Your task to perform on an android device: View the shopping cart on costco.com. Add "razer blade" to the cart on costco.com Image 0: 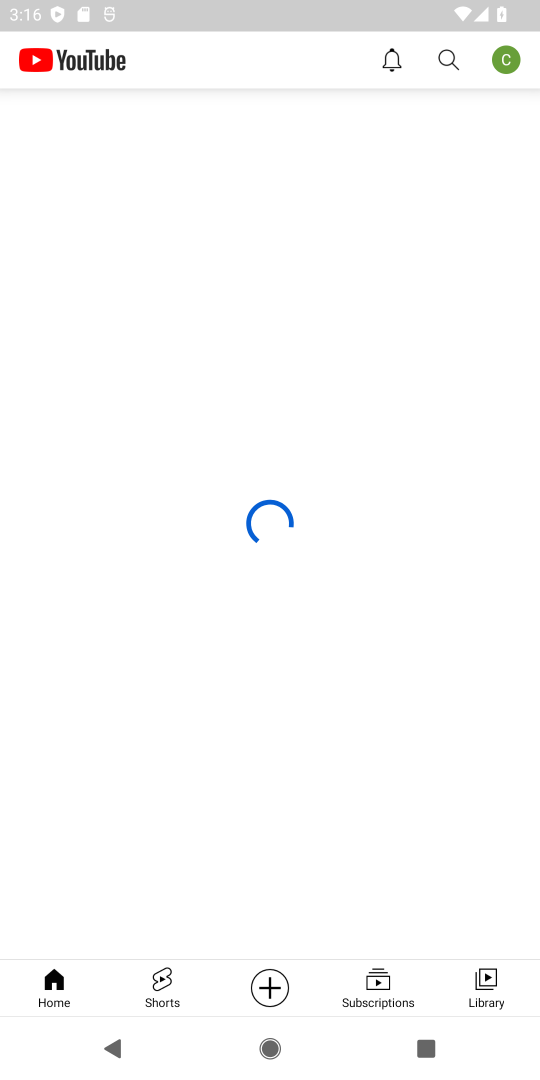
Step 0: press home button
Your task to perform on an android device: View the shopping cart on costco.com. Add "razer blade" to the cart on costco.com Image 1: 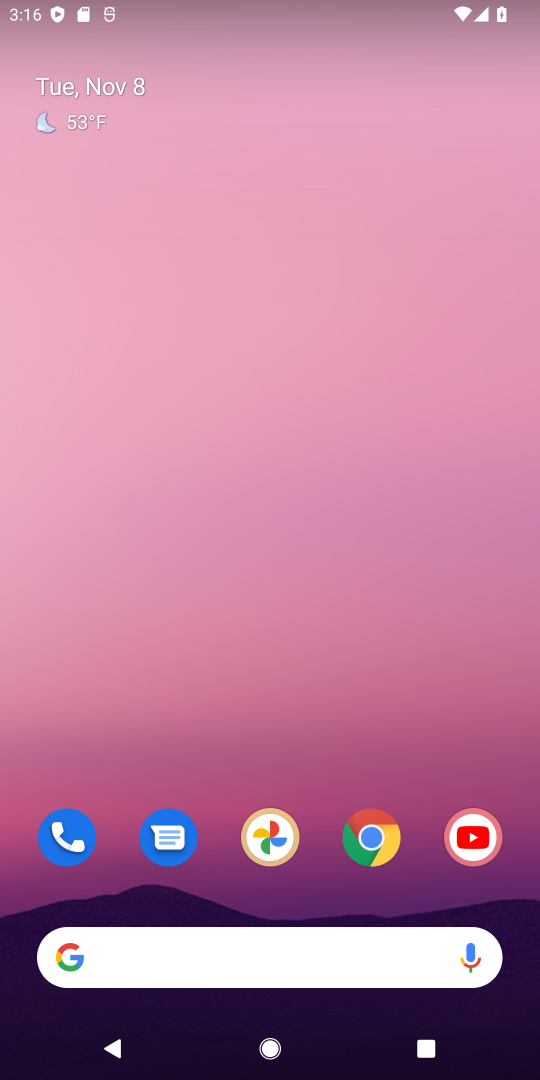
Step 1: click (369, 837)
Your task to perform on an android device: View the shopping cart on costco.com. Add "razer blade" to the cart on costco.com Image 2: 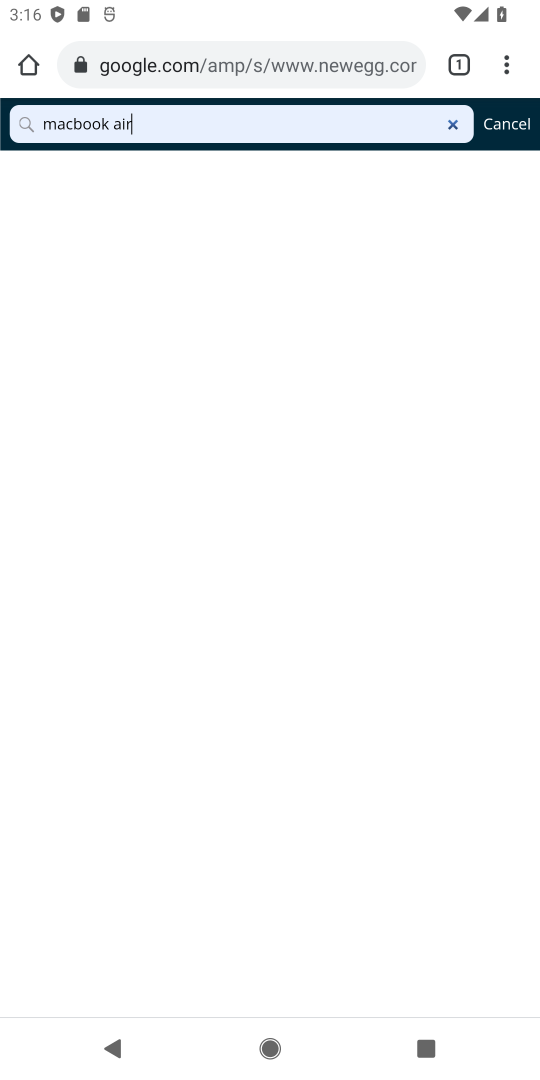
Step 2: click (199, 68)
Your task to perform on an android device: View the shopping cart on costco.com. Add "razer blade" to the cart on costco.com Image 3: 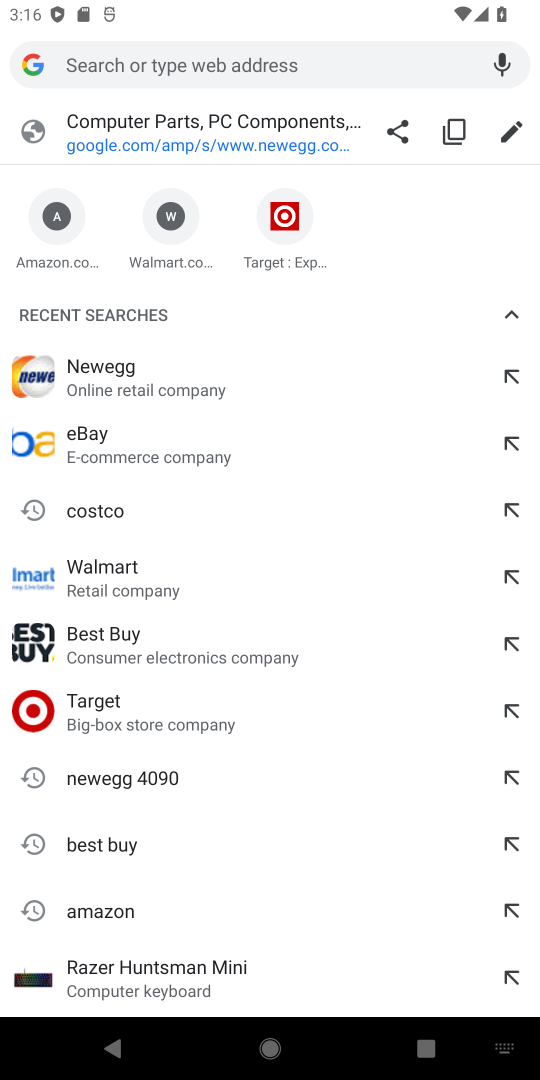
Step 3: click (86, 506)
Your task to perform on an android device: View the shopping cart on costco.com. Add "razer blade" to the cart on costco.com Image 4: 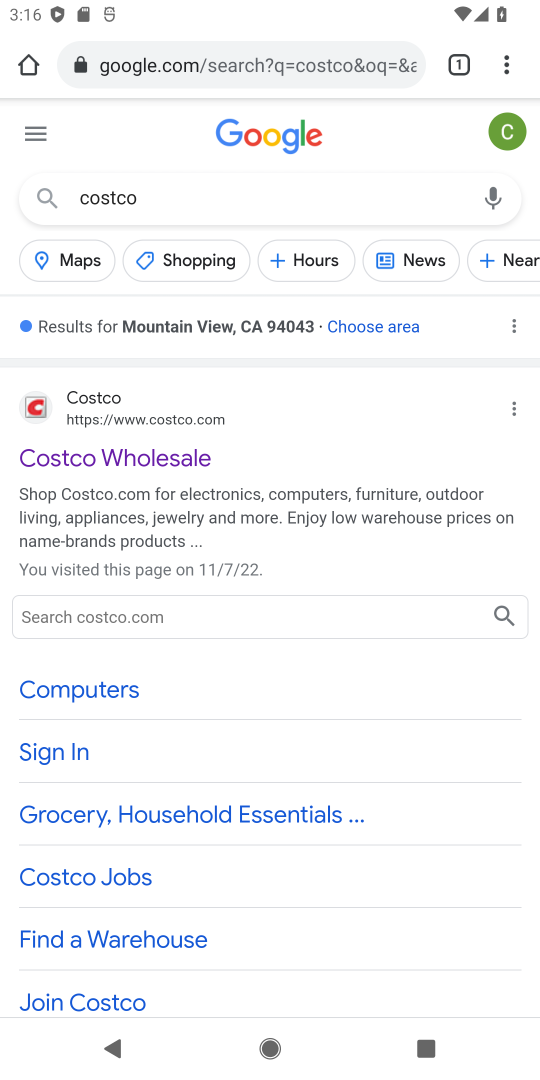
Step 4: click (134, 449)
Your task to perform on an android device: View the shopping cart on costco.com. Add "razer blade" to the cart on costco.com Image 5: 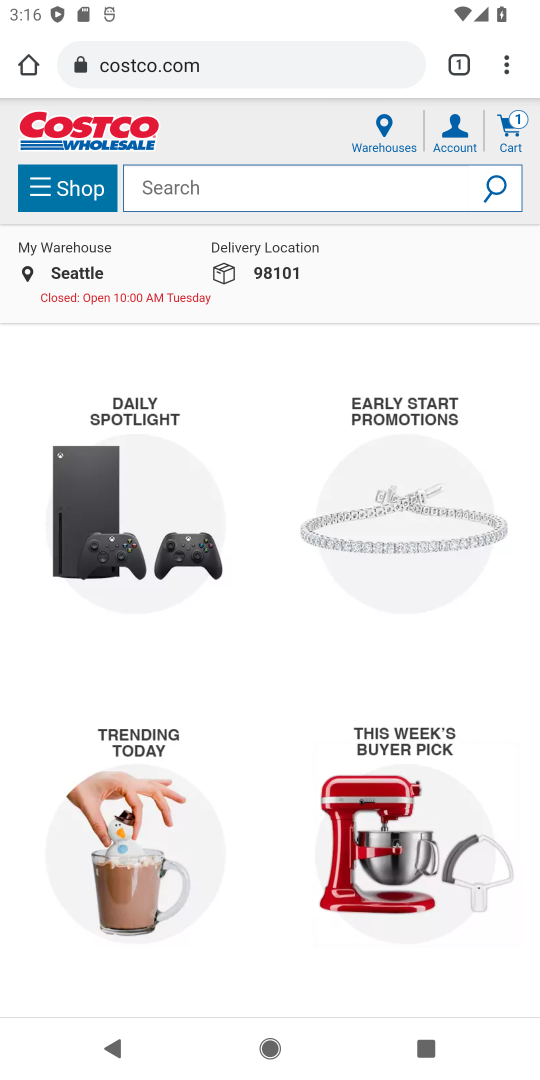
Step 5: click (214, 183)
Your task to perform on an android device: View the shopping cart on costco.com. Add "razer blade" to the cart on costco.com Image 6: 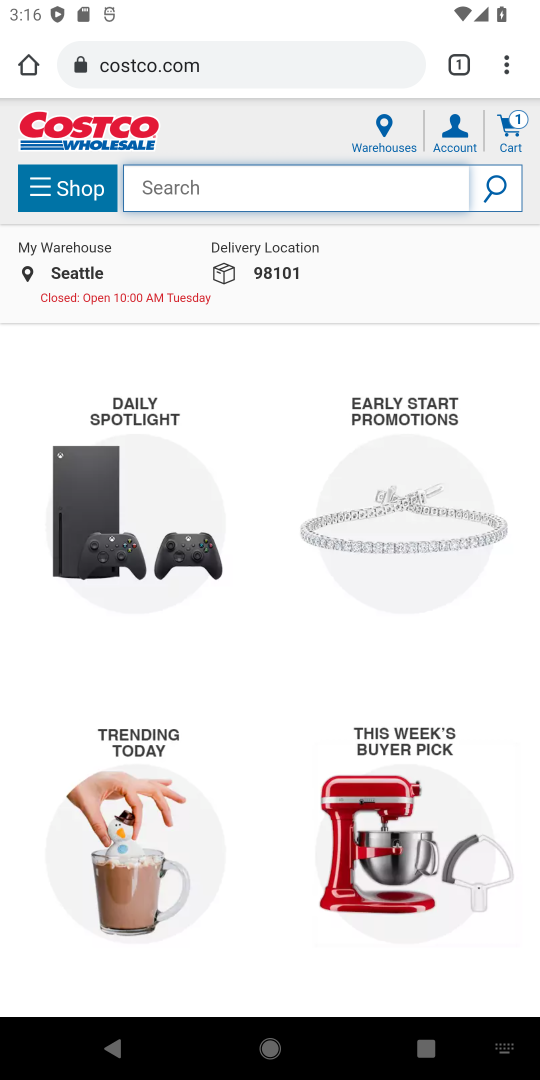
Step 6: type "razer blade"
Your task to perform on an android device: View the shopping cart on costco.com. Add "razer blade" to the cart on costco.com Image 7: 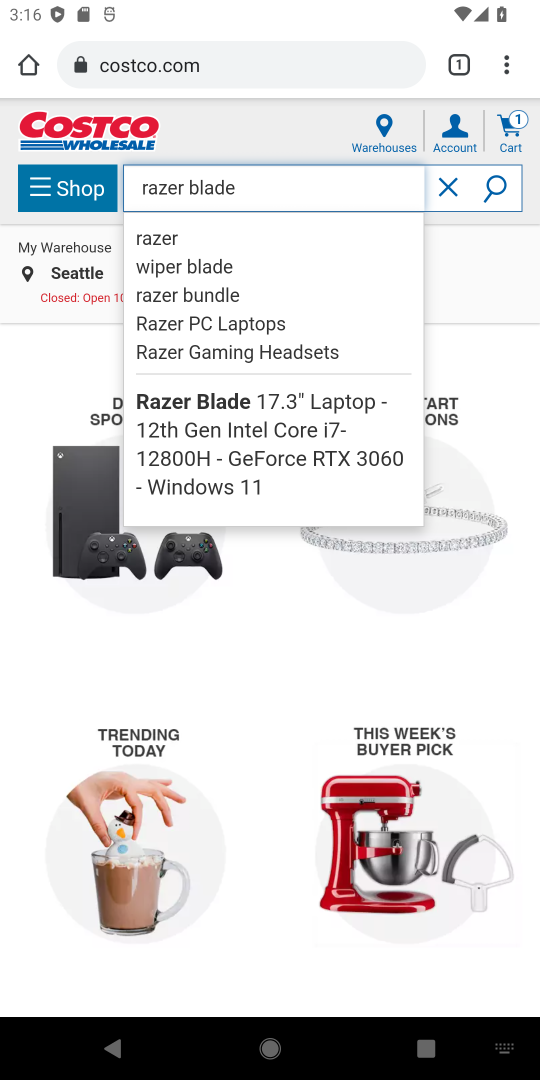
Step 7: click (171, 297)
Your task to perform on an android device: View the shopping cart on costco.com. Add "razer blade" to the cart on costco.com Image 8: 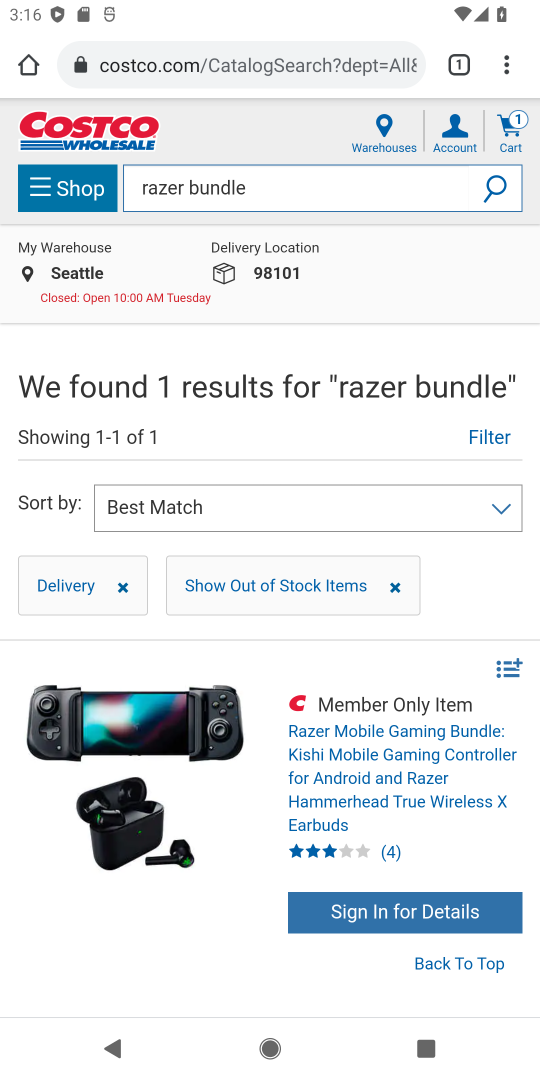
Step 8: drag from (220, 837) to (238, 255)
Your task to perform on an android device: View the shopping cart on costco.com. Add "razer blade" to the cart on costco.com Image 9: 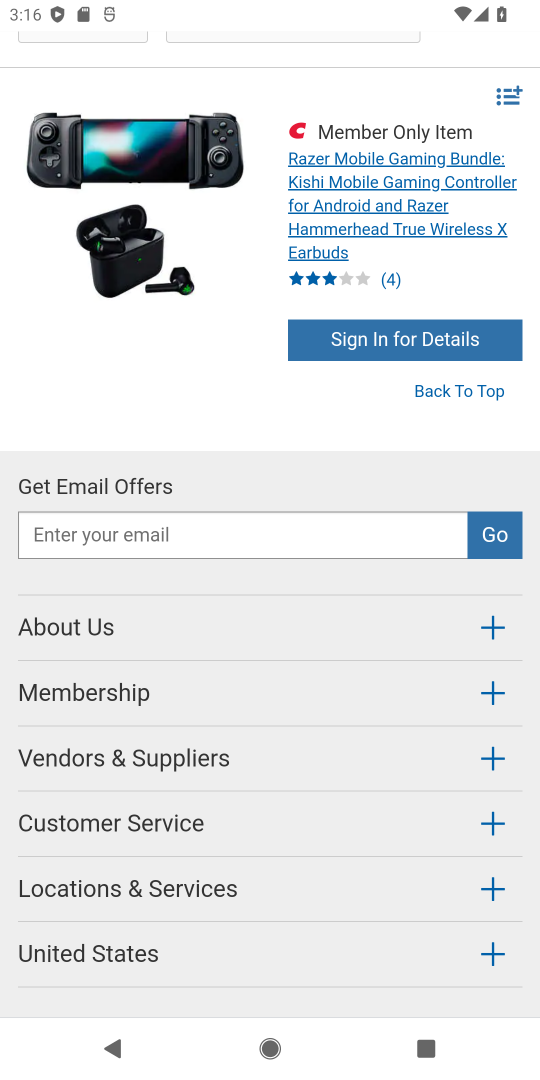
Step 9: click (389, 158)
Your task to perform on an android device: View the shopping cart on costco.com. Add "razer blade" to the cart on costco.com Image 10: 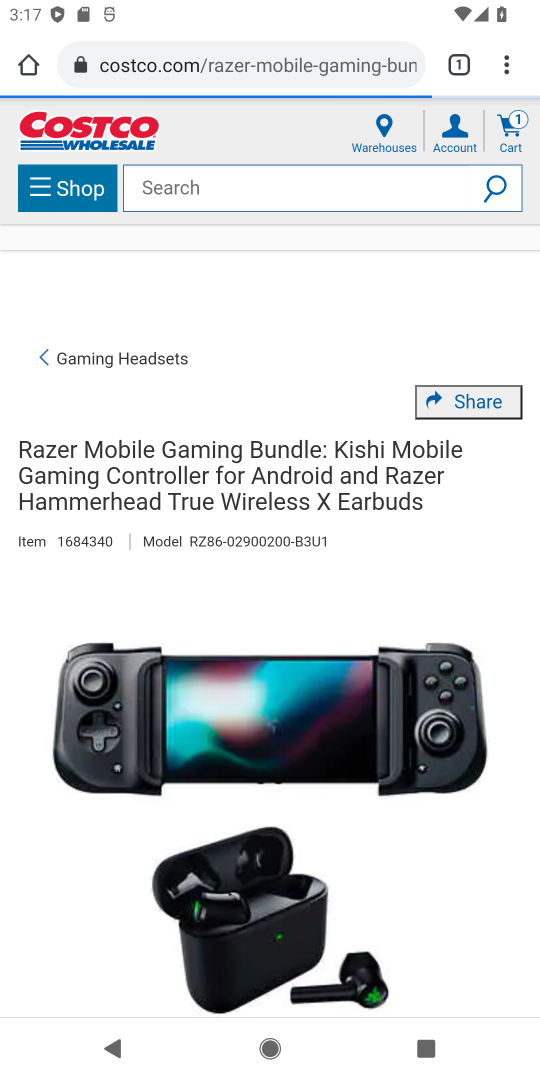
Step 10: drag from (249, 840) to (348, 282)
Your task to perform on an android device: View the shopping cart on costco.com. Add "razer blade" to the cart on costco.com Image 11: 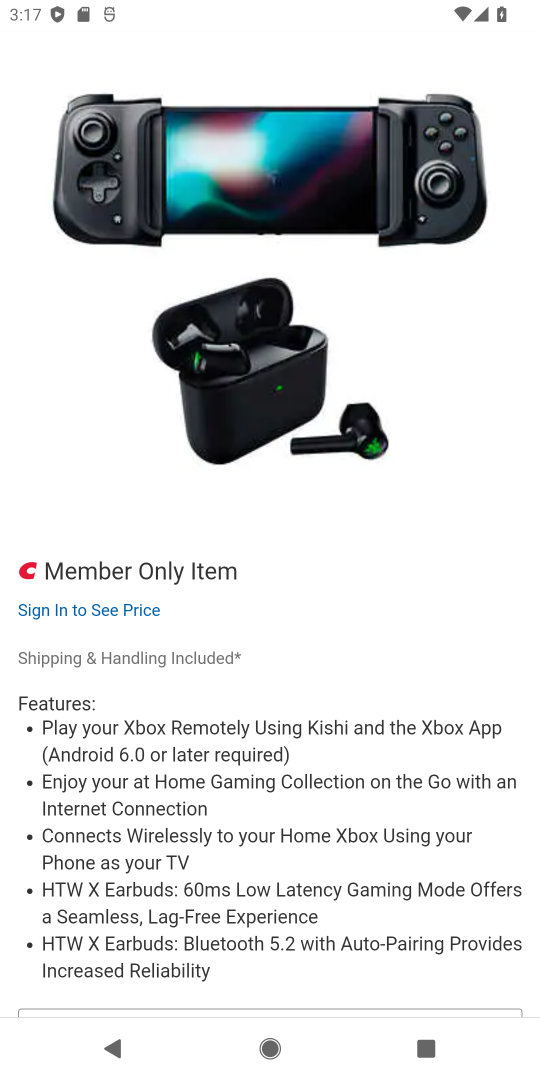
Step 11: drag from (316, 688) to (280, 303)
Your task to perform on an android device: View the shopping cart on costco.com. Add "razer blade" to the cart on costco.com Image 12: 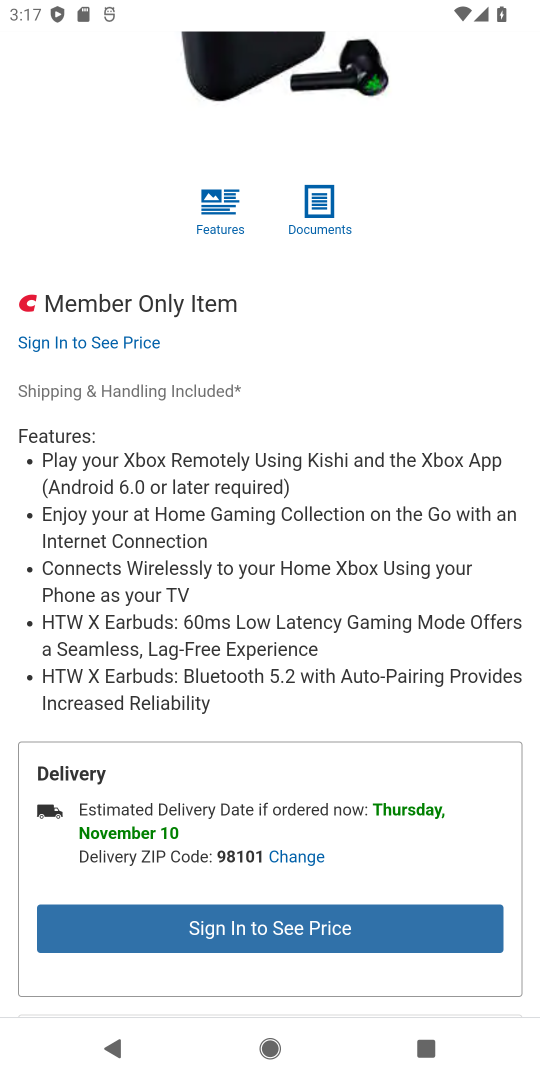
Step 12: drag from (78, 776) to (120, 168)
Your task to perform on an android device: View the shopping cart on costco.com. Add "razer blade" to the cart on costco.com Image 13: 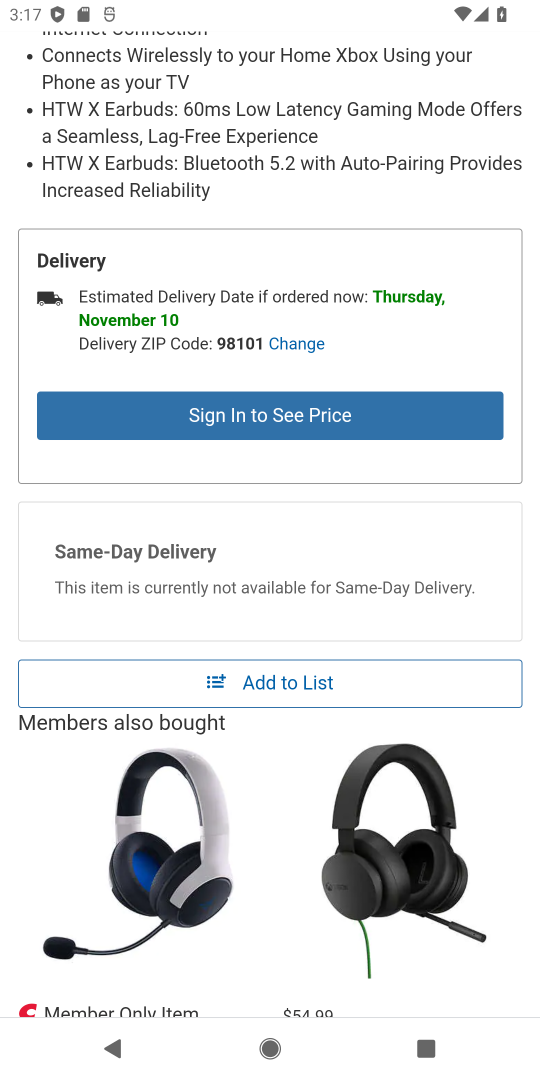
Step 13: click (259, 689)
Your task to perform on an android device: View the shopping cart on costco.com. Add "razer blade" to the cart on costco.com Image 14: 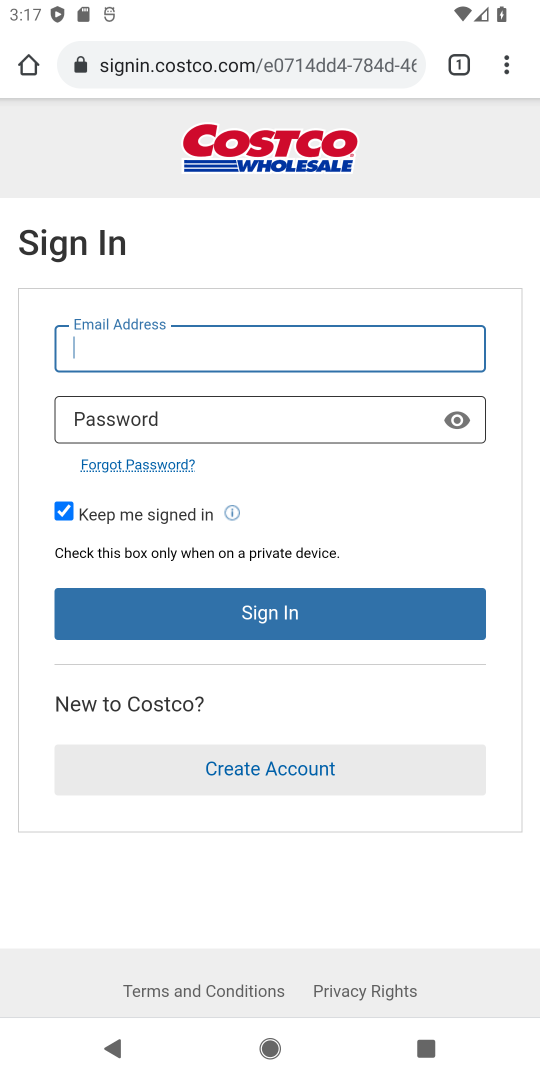
Step 14: press back button
Your task to perform on an android device: View the shopping cart on costco.com. Add "razer blade" to the cart on costco.com Image 15: 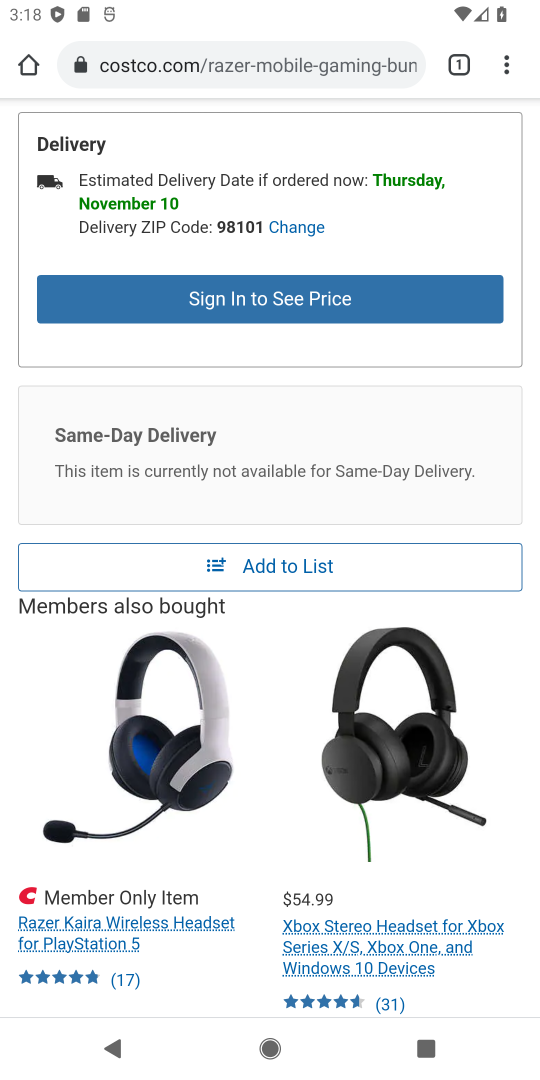
Step 15: drag from (256, 622) to (215, 35)
Your task to perform on an android device: View the shopping cart on costco.com. Add "razer blade" to the cart on costco.com Image 16: 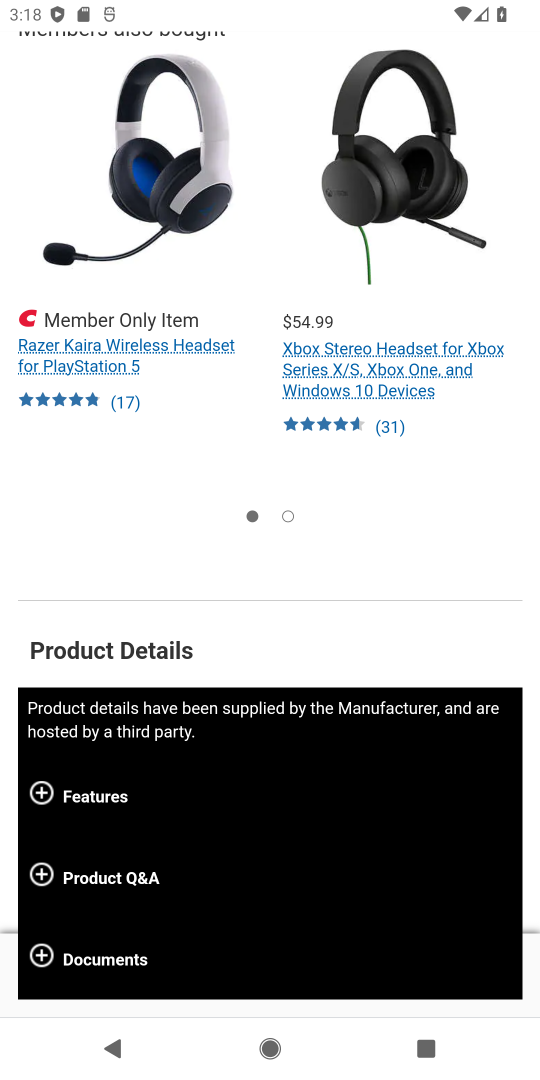
Step 16: drag from (375, 442) to (364, 159)
Your task to perform on an android device: View the shopping cart on costco.com. Add "razer blade" to the cart on costco.com Image 17: 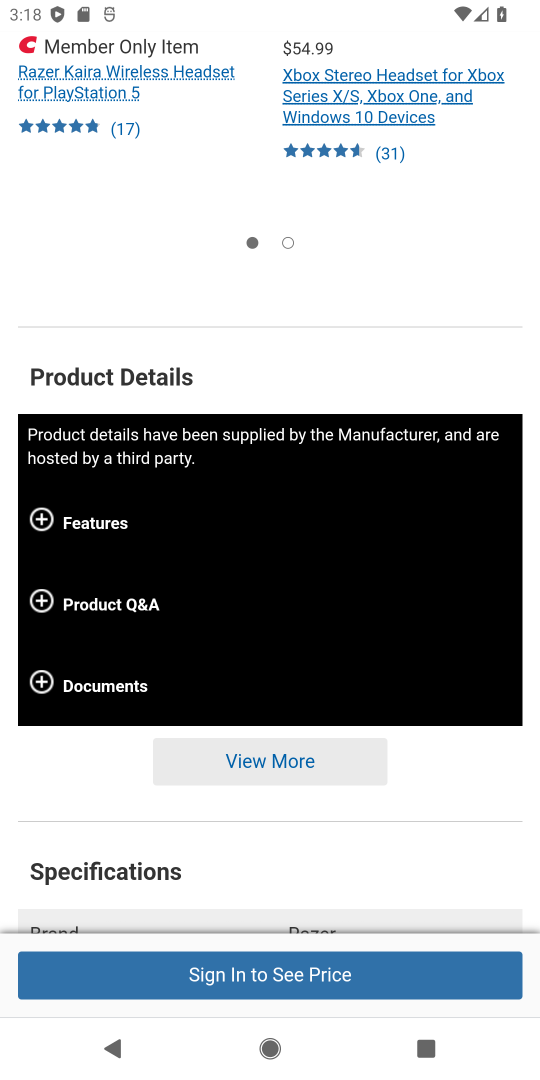
Step 17: drag from (187, 222) to (251, 926)
Your task to perform on an android device: View the shopping cart on costco.com. Add "razer blade" to the cart on costco.com Image 18: 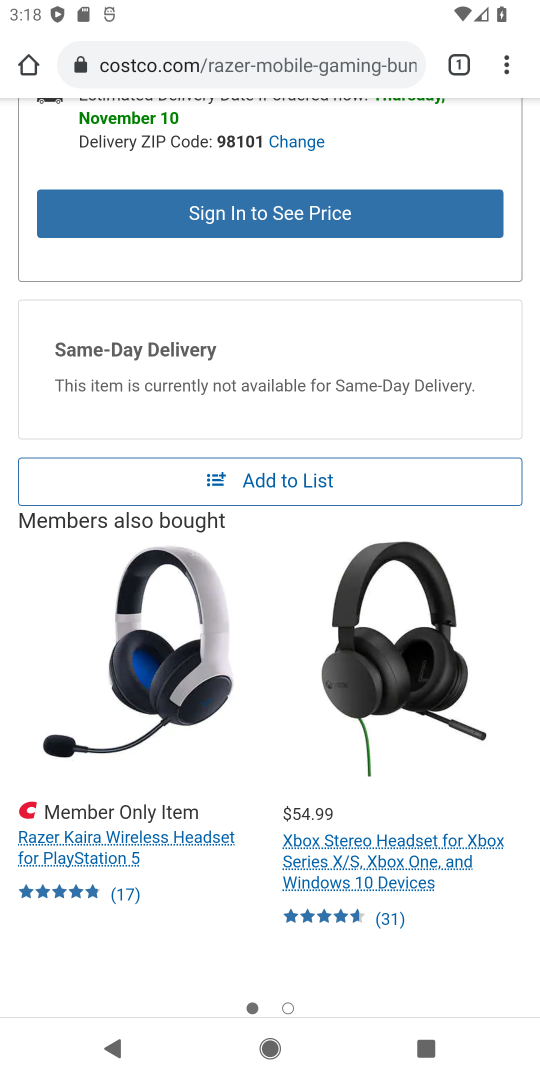
Step 18: click (293, 485)
Your task to perform on an android device: View the shopping cart on costco.com. Add "razer blade" to the cart on costco.com Image 19: 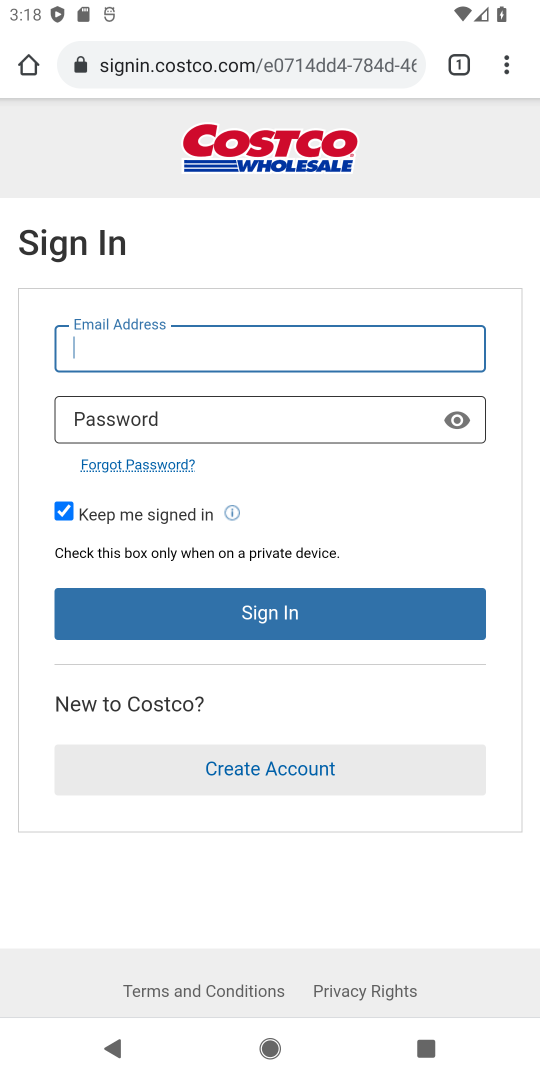
Step 19: task complete